Your task to perform on an android device: turn notification dots off Image 0: 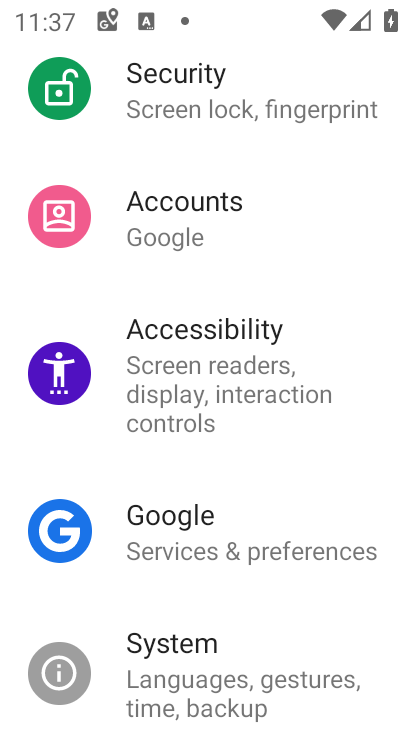
Step 0: press home button
Your task to perform on an android device: turn notification dots off Image 1: 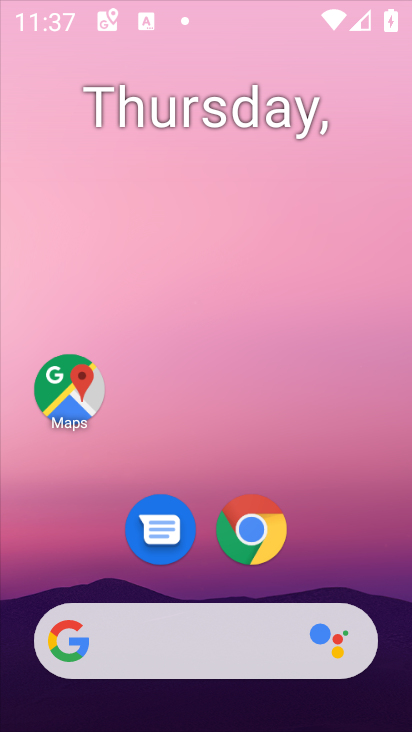
Step 1: drag from (208, 646) to (263, 213)
Your task to perform on an android device: turn notification dots off Image 2: 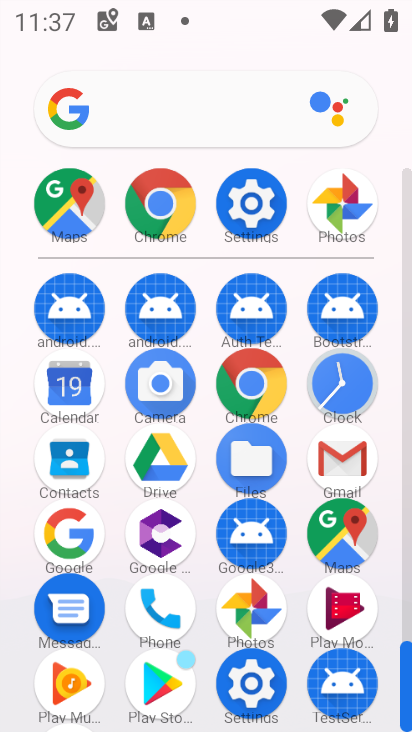
Step 2: click (258, 202)
Your task to perform on an android device: turn notification dots off Image 3: 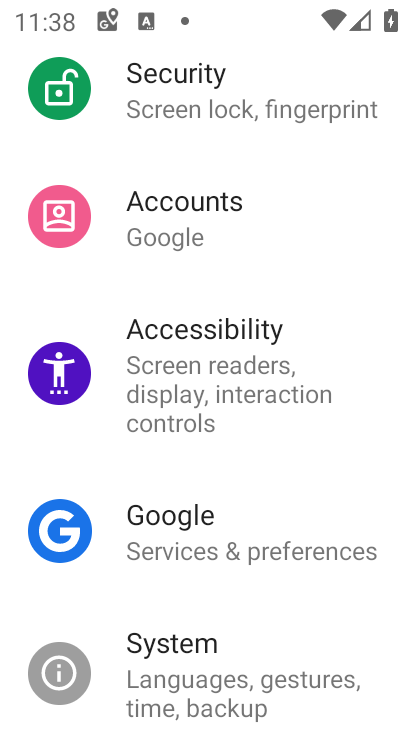
Step 3: drag from (169, 393) to (145, 731)
Your task to perform on an android device: turn notification dots off Image 4: 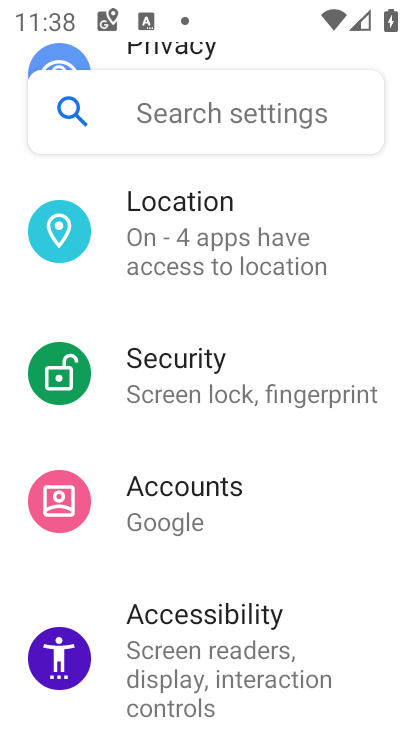
Step 4: drag from (203, 446) to (181, 729)
Your task to perform on an android device: turn notification dots off Image 5: 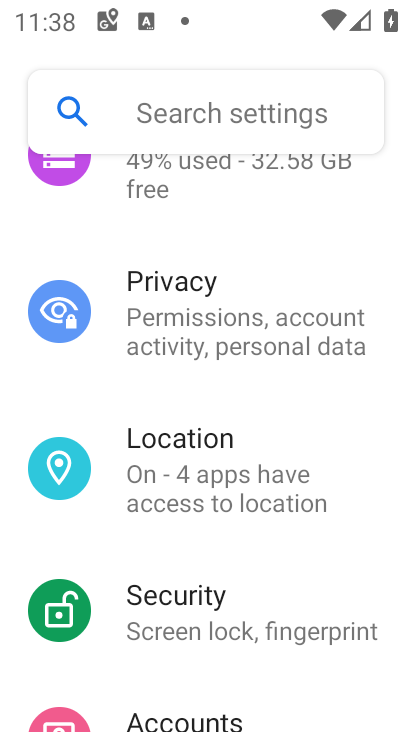
Step 5: drag from (207, 375) to (148, 729)
Your task to perform on an android device: turn notification dots off Image 6: 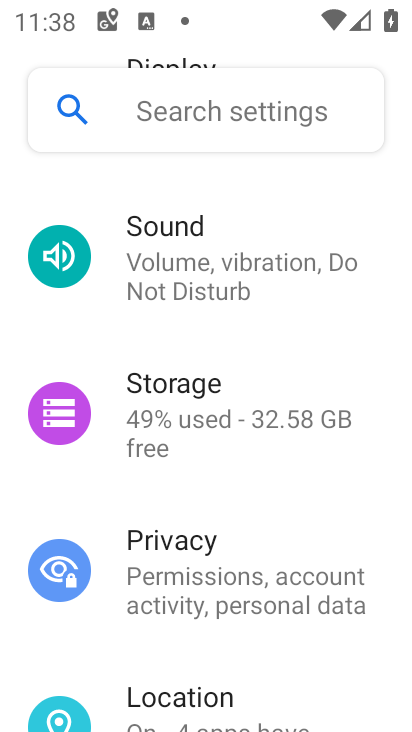
Step 6: drag from (164, 352) to (159, 714)
Your task to perform on an android device: turn notification dots off Image 7: 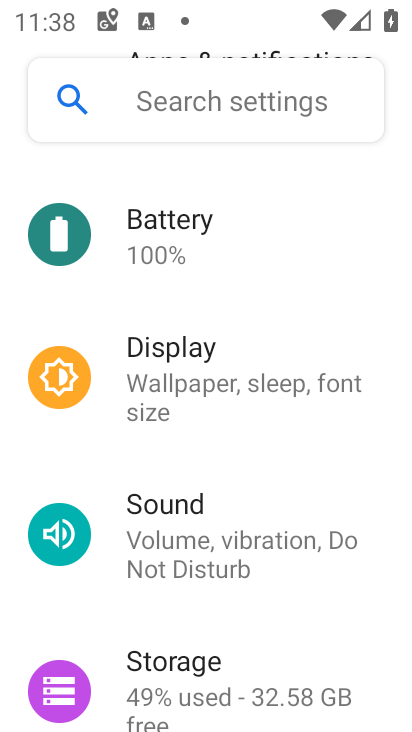
Step 7: drag from (189, 392) to (187, 703)
Your task to perform on an android device: turn notification dots off Image 8: 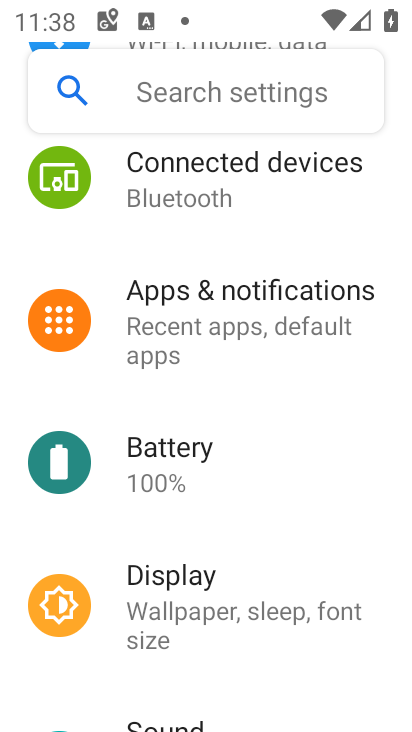
Step 8: click (269, 383)
Your task to perform on an android device: turn notification dots off Image 9: 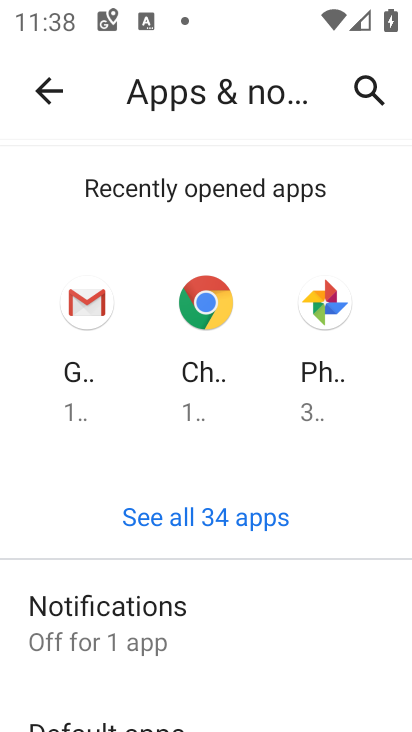
Step 9: click (130, 611)
Your task to perform on an android device: turn notification dots off Image 10: 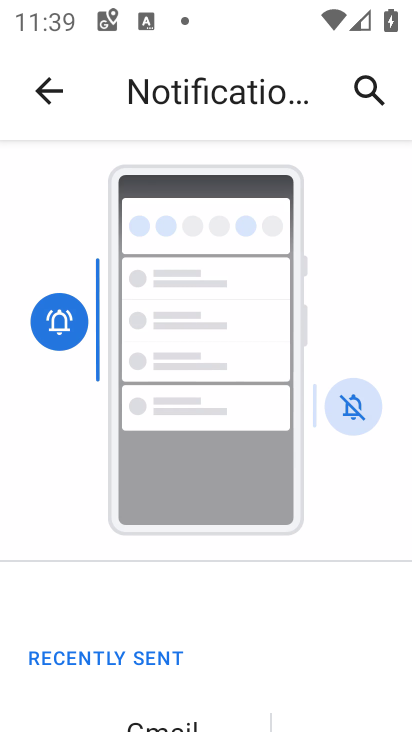
Step 10: drag from (127, 591) to (115, 238)
Your task to perform on an android device: turn notification dots off Image 11: 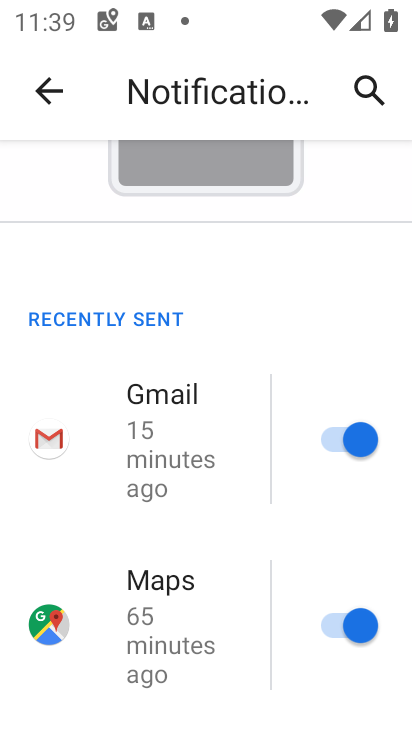
Step 11: drag from (107, 516) to (103, 188)
Your task to perform on an android device: turn notification dots off Image 12: 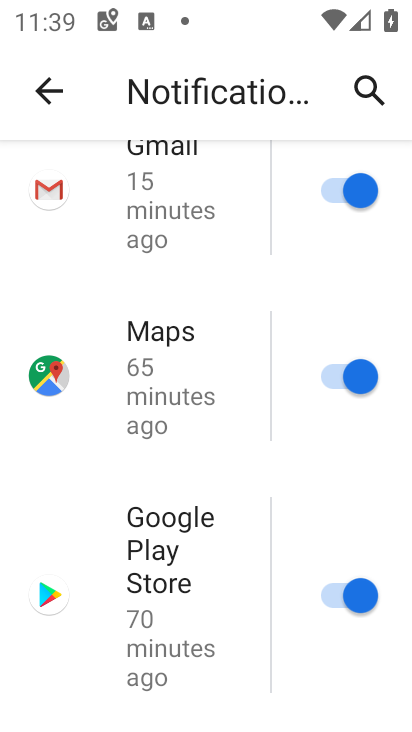
Step 12: drag from (107, 499) to (132, 251)
Your task to perform on an android device: turn notification dots off Image 13: 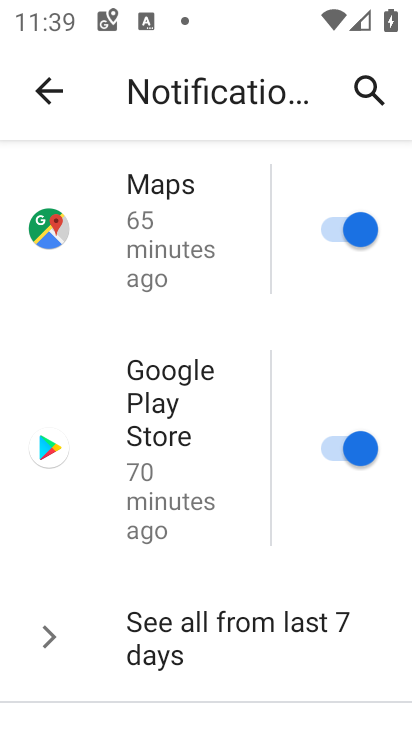
Step 13: drag from (153, 547) to (187, 168)
Your task to perform on an android device: turn notification dots off Image 14: 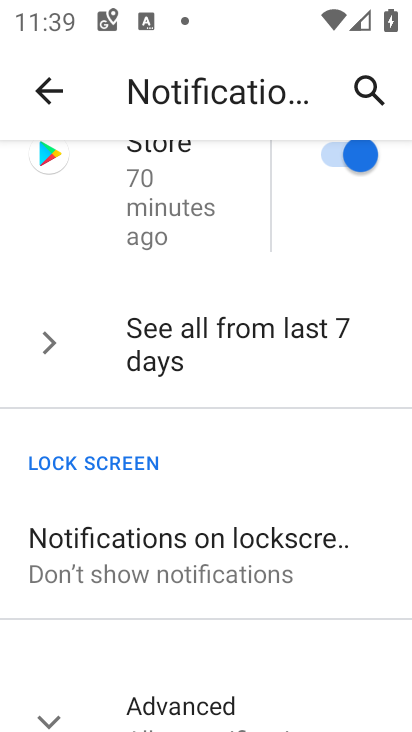
Step 14: drag from (160, 532) to (163, 399)
Your task to perform on an android device: turn notification dots off Image 15: 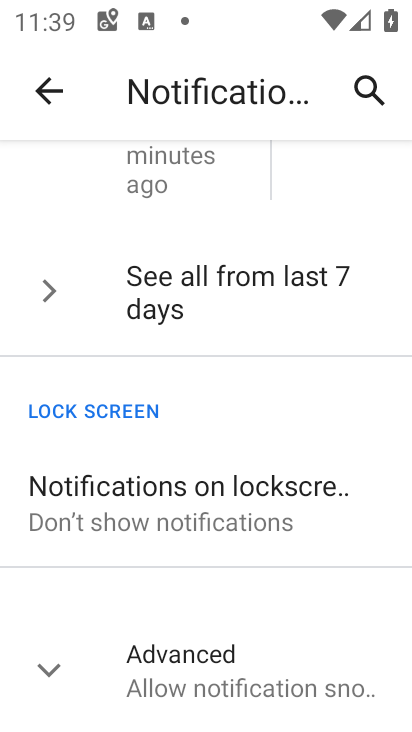
Step 15: drag from (160, 608) to (188, 354)
Your task to perform on an android device: turn notification dots off Image 16: 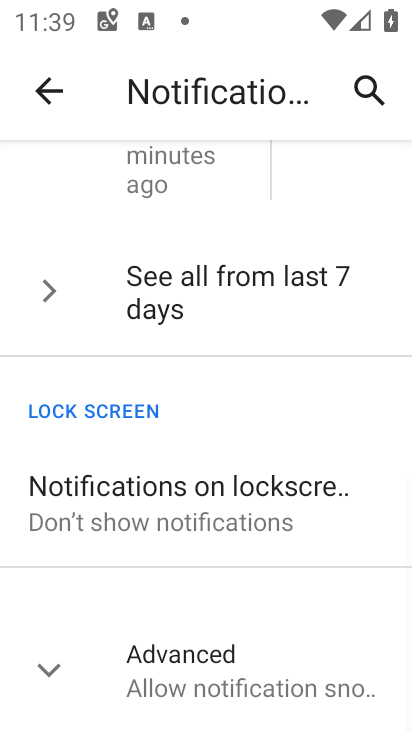
Step 16: click (189, 659)
Your task to perform on an android device: turn notification dots off Image 17: 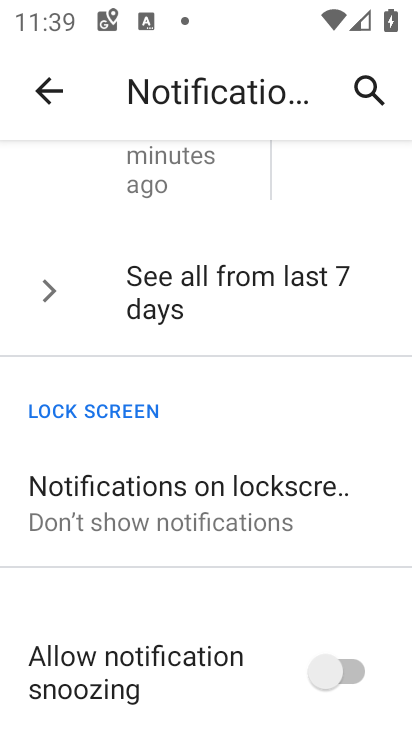
Step 17: drag from (277, 358) to (308, 10)
Your task to perform on an android device: turn notification dots off Image 18: 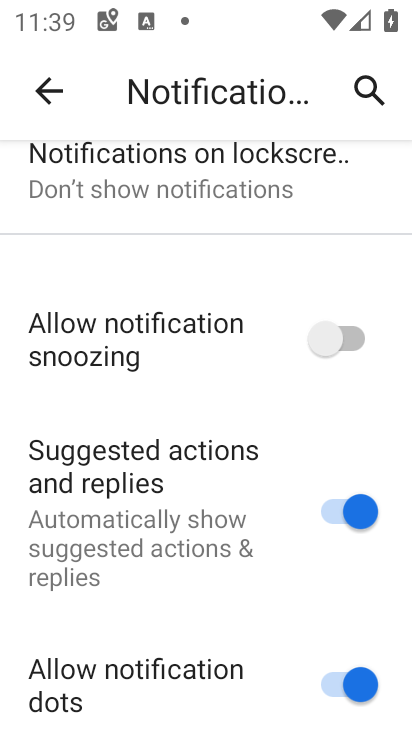
Step 18: click (335, 705)
Your task to perform on an android device: turn notification dots off Image 19: 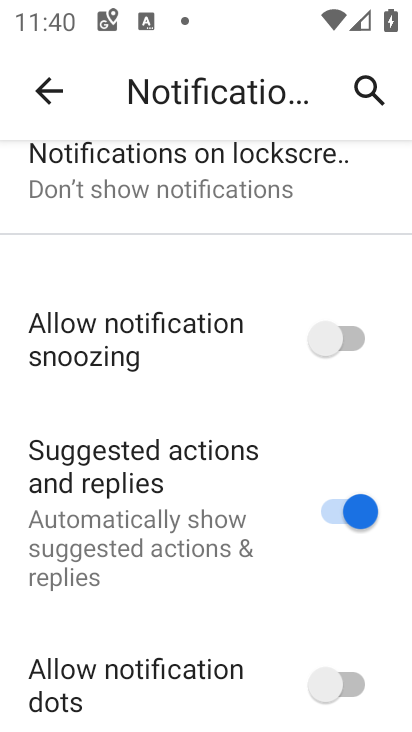
Step 19: task complete